Your task to perform on an android device: open app "Reddit" (install if not already installed) Image 0: 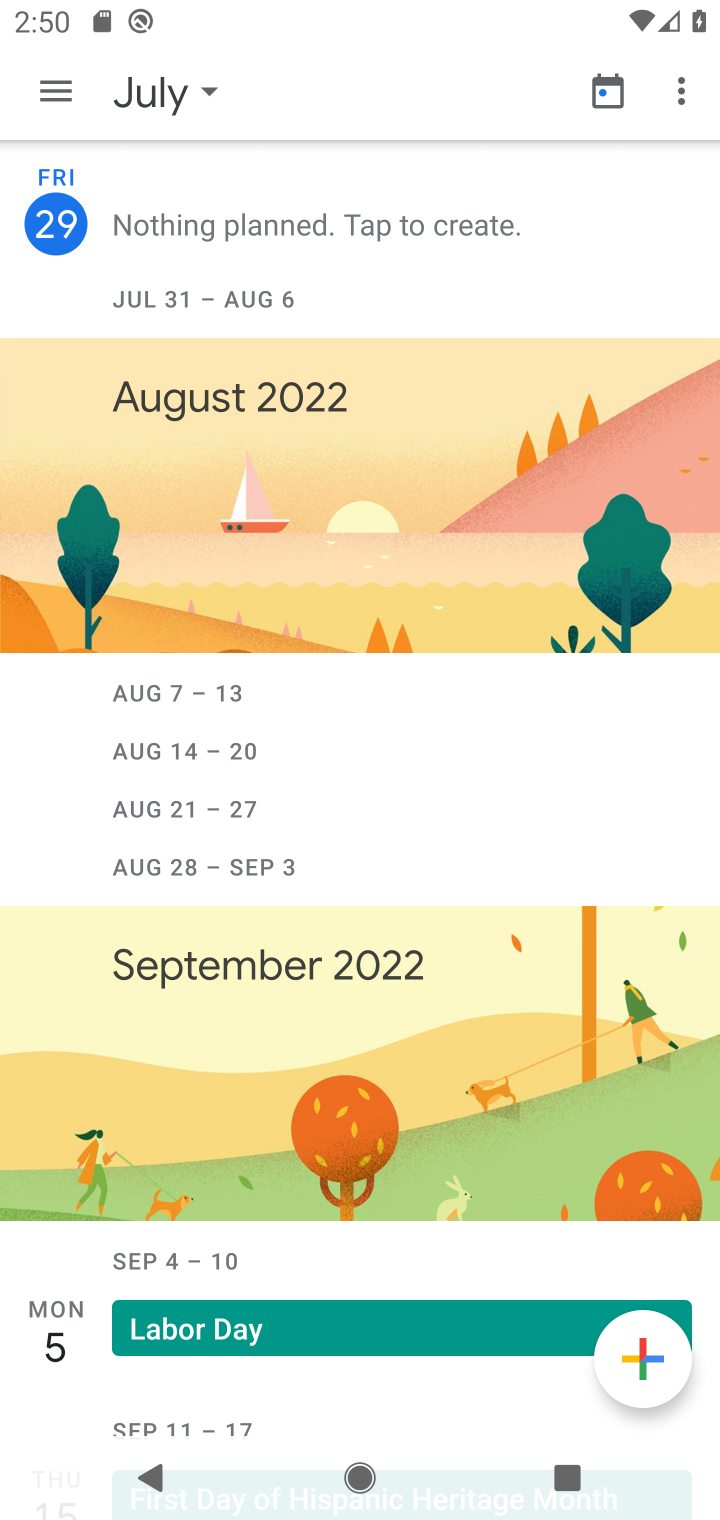
Step 0: press home button
Your task to perform on an android device: open app "Reddit" (install if not already installed) Image 1: 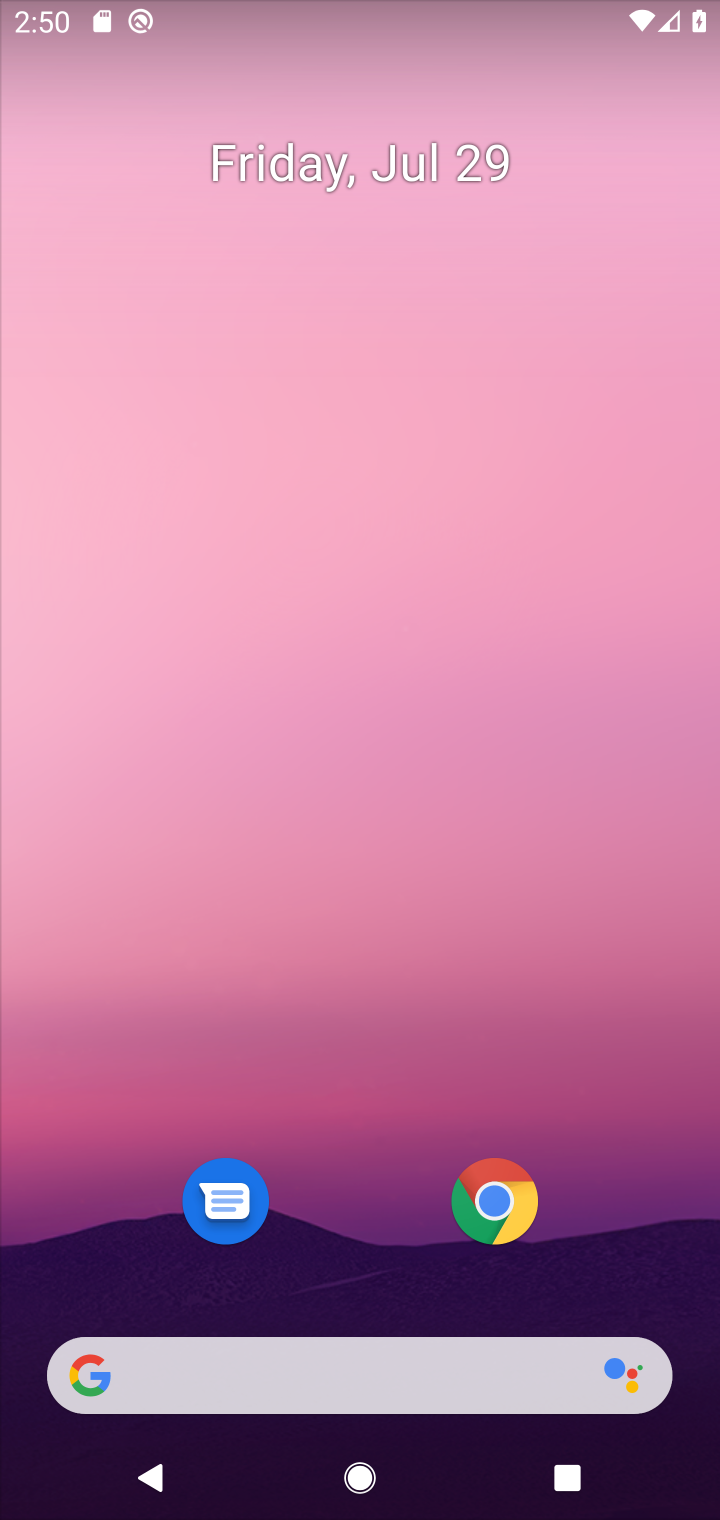
Step 1: drag from (718, 995) to (702, 225)
Your task to perform on an android device: open app "Reddit" (install if not already installed) Image 2: 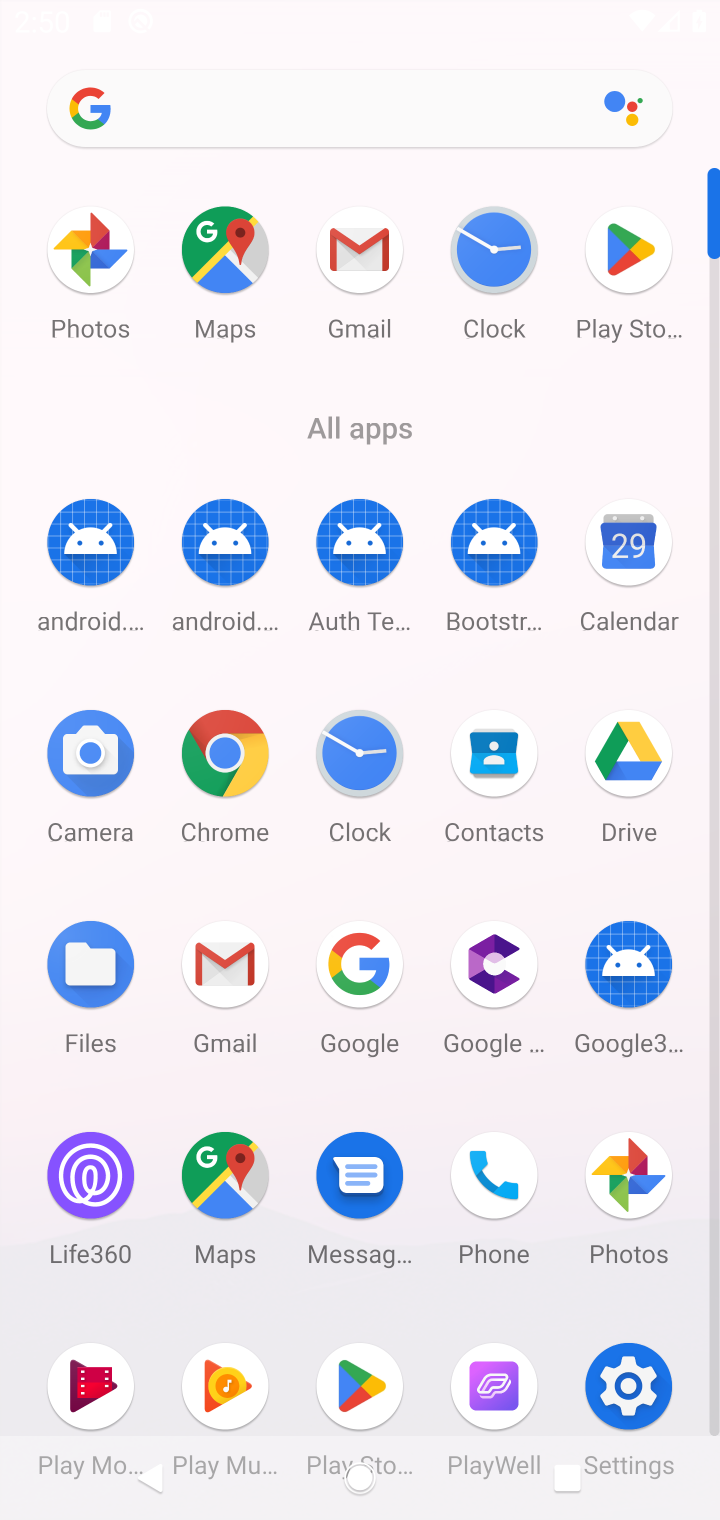
Step 2: drag from (555, 1188) to (463, 1092)
Your task to perform on an android device: open app "Reddit" (install if not already installed) Image 3: 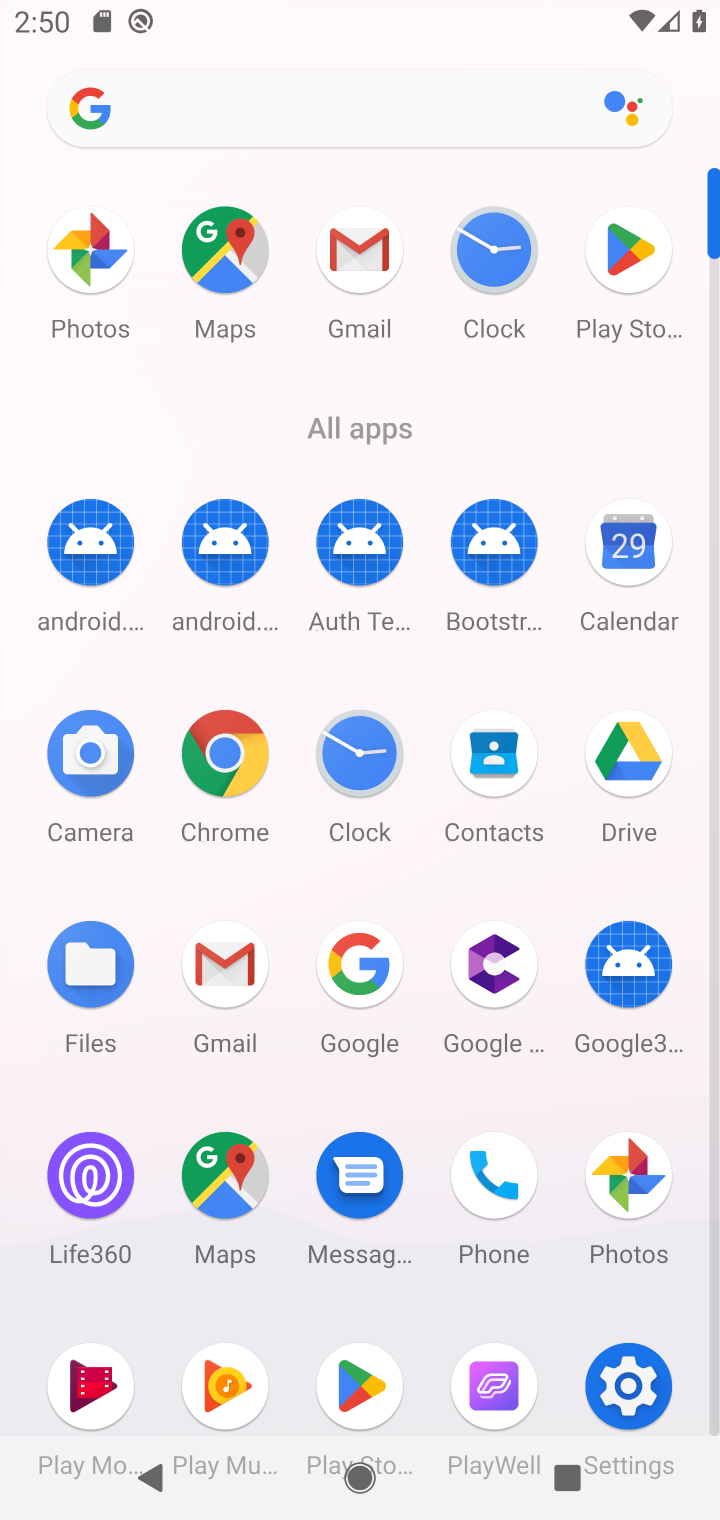
Step 3: click (628, 254)
Your task to perform on an android device: open app "Reddit" (install if not already installed) Image 4: 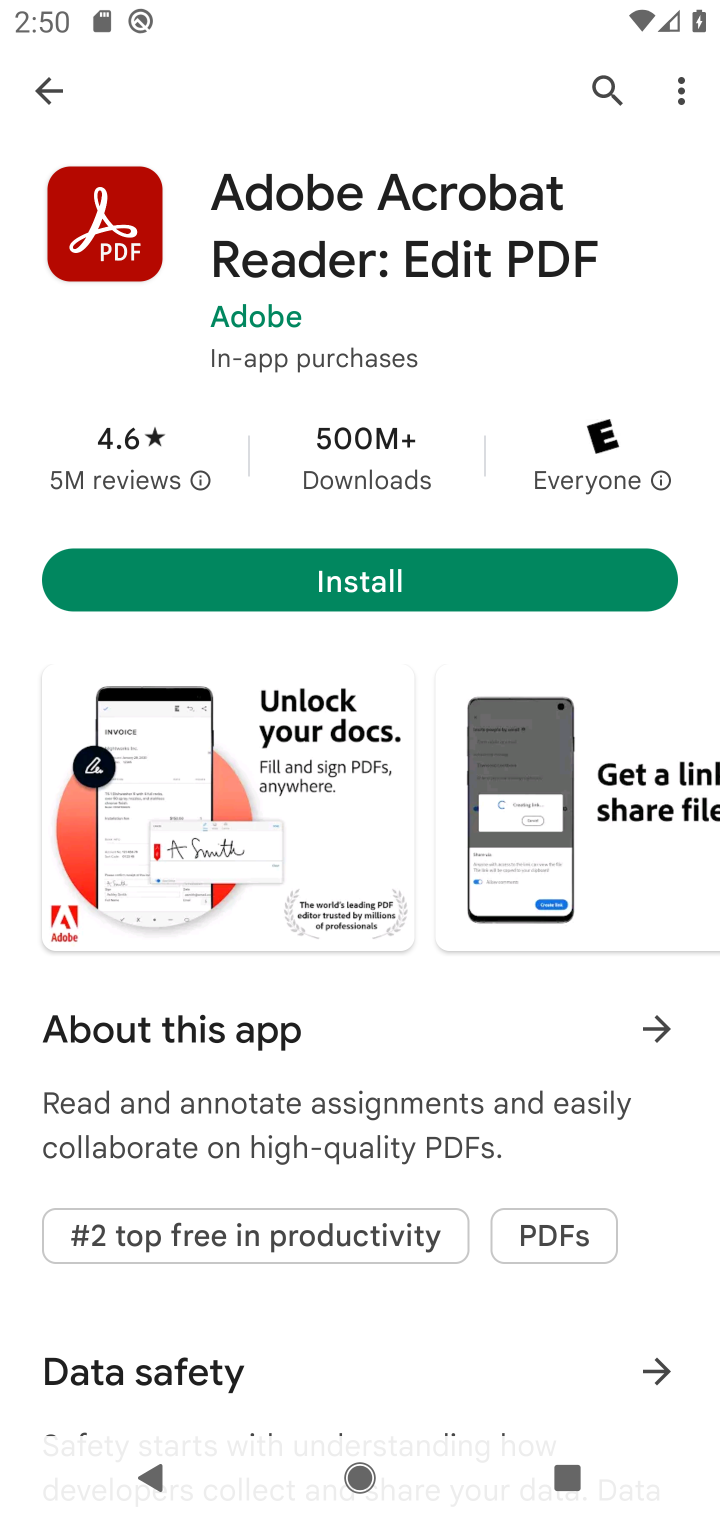
Step 4: click (610, 97)
Your task to perform on an android device: open app "Reddit" (install if not already installed) Image 5: 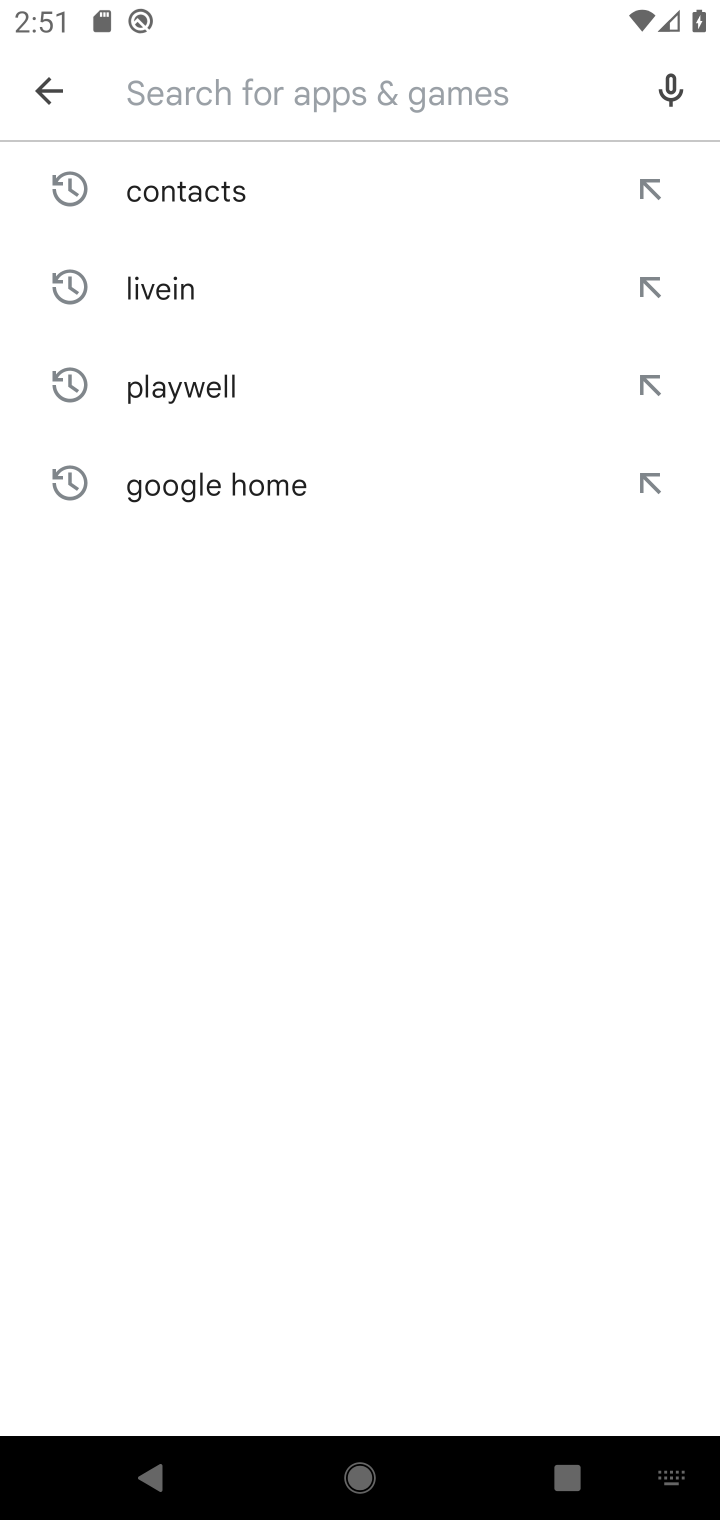
Step 5: type "Reddit"
Your task to perform on an android device: open app "Reddit" (install if not already installed) Image 6: 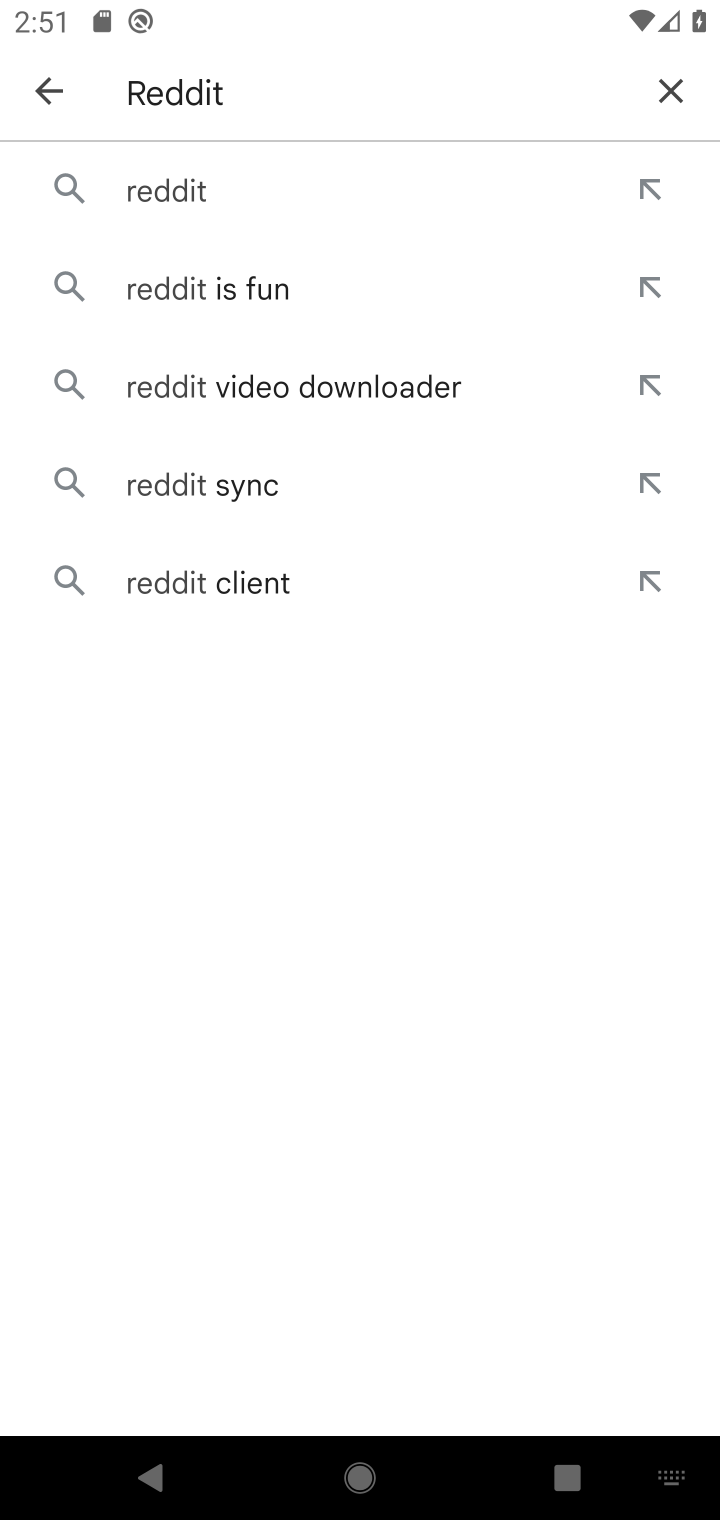
Step 6: click (130, 201)
Your task to perform on an android device: open app "Reddit" (install if not already installed) Image 7: 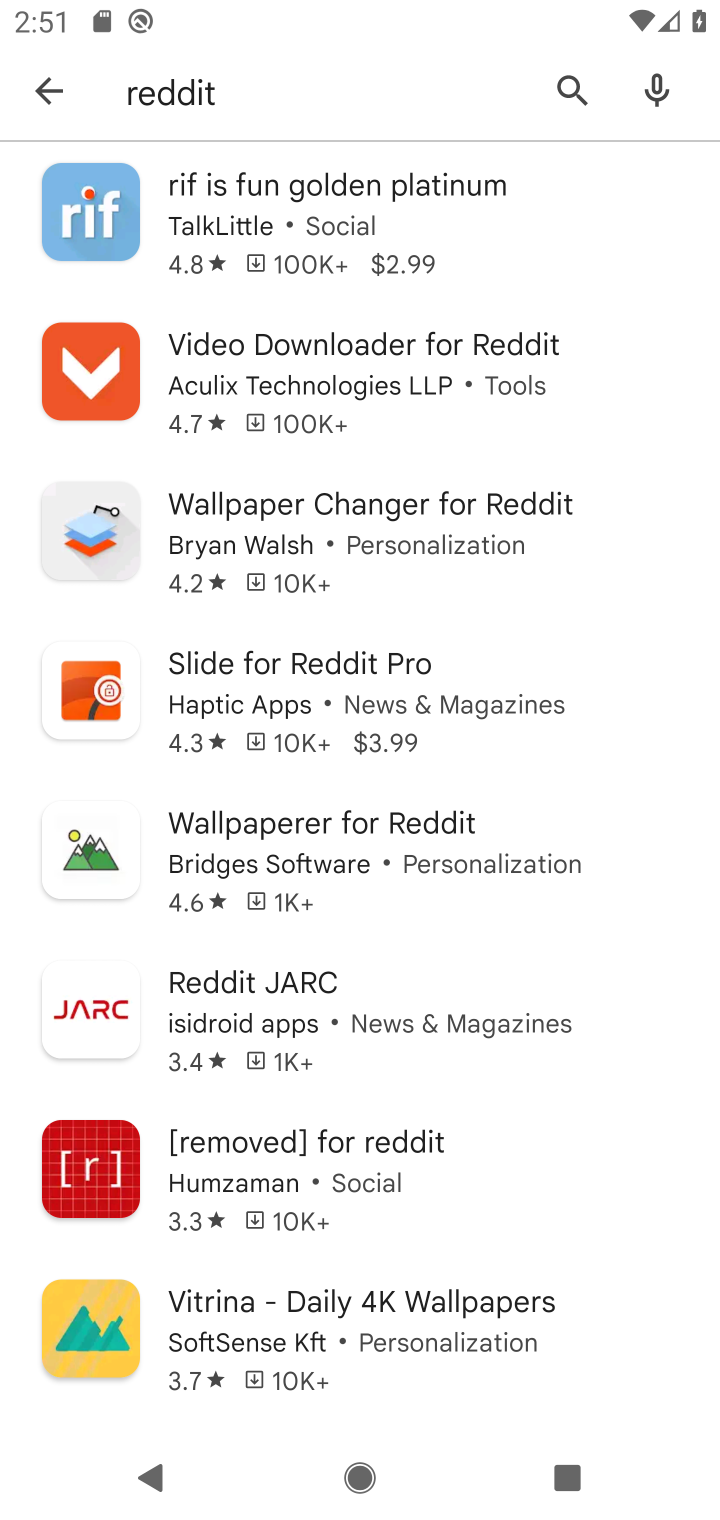
Step 7: task complete